Your task to perform on an android device: uninstall "Cash App" Image 0: 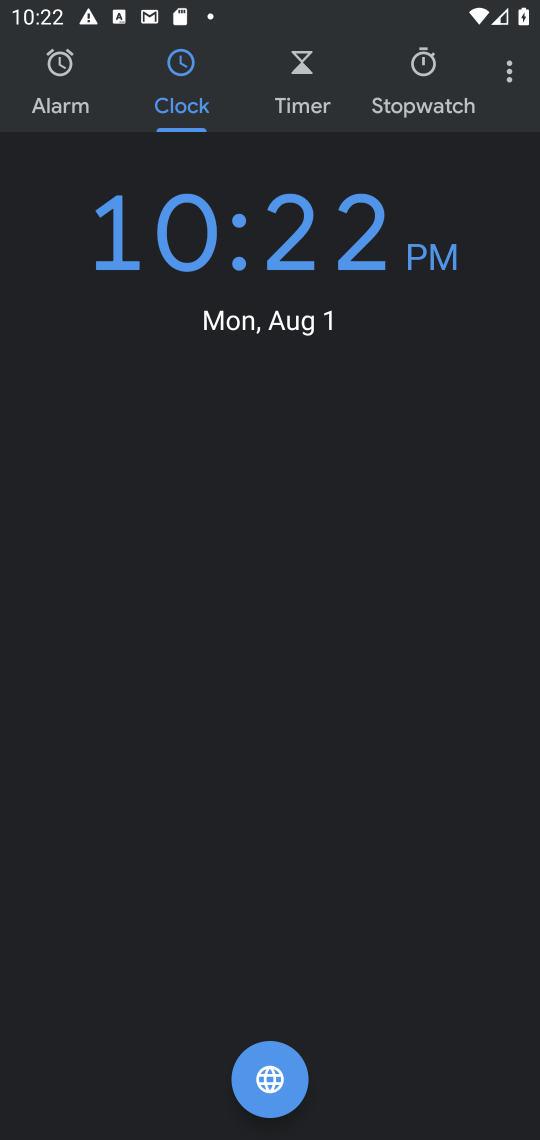
Step 0: press home button
Your task to perform on an android device: uninstall "Cash App" Image 1: 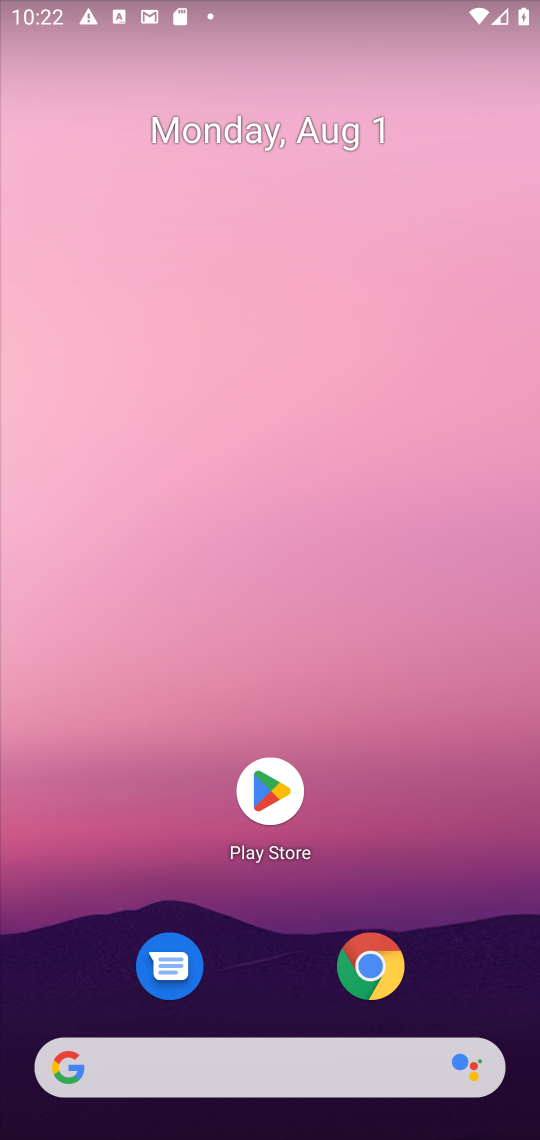
Step 1: click (268, 781)
Your task to perform on an android device: uninstall "Cash App" Image 2: 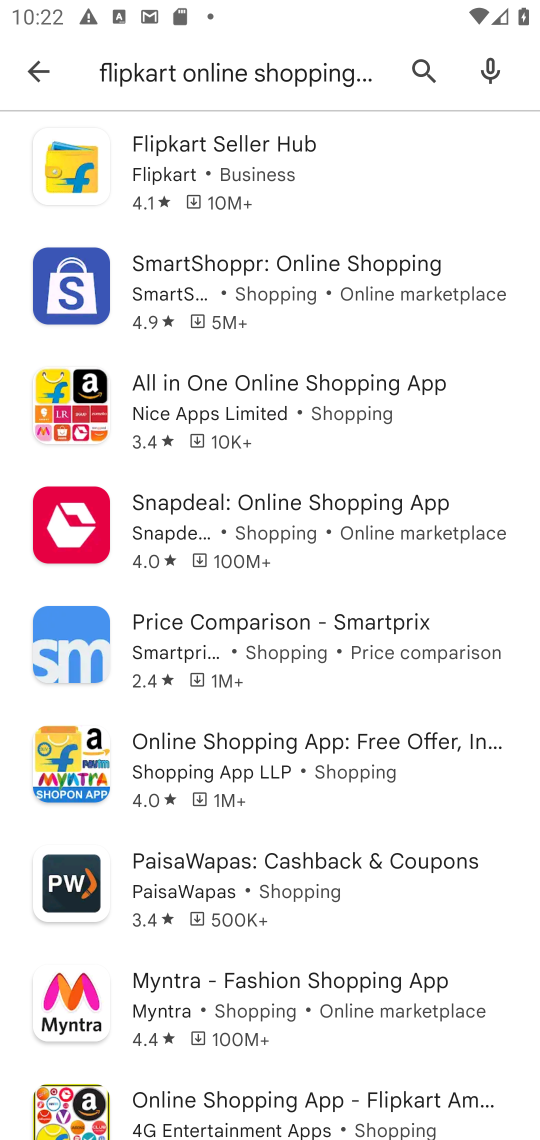
Step 2: click (70, 231)
Your task to perform on an android device: uninstall "Cash App" Image 3: 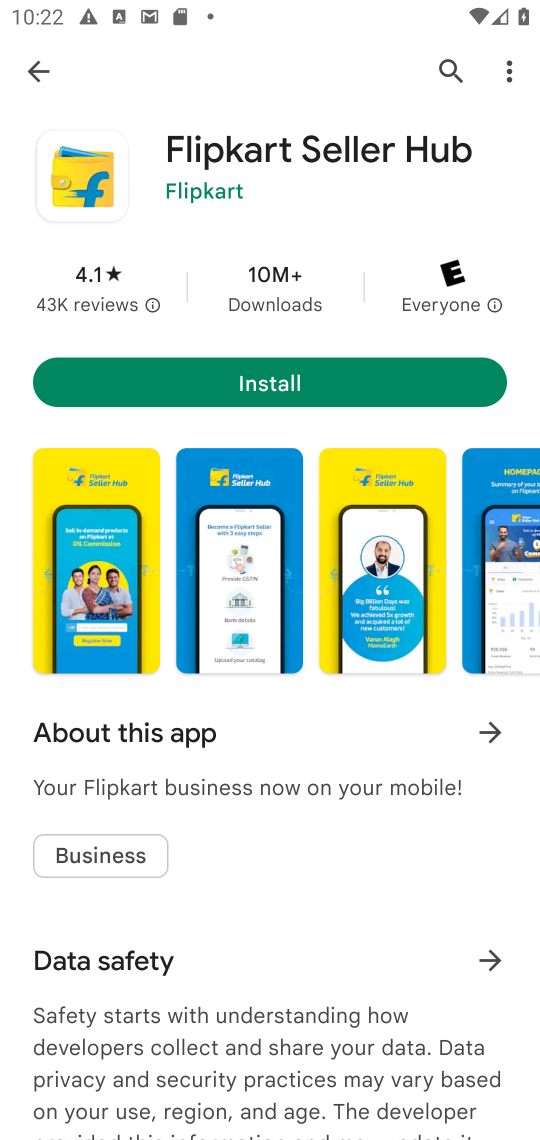
Step 3: click (447, 67)
Your task to perform on an android device: uninstall "Cash App" Image 4: 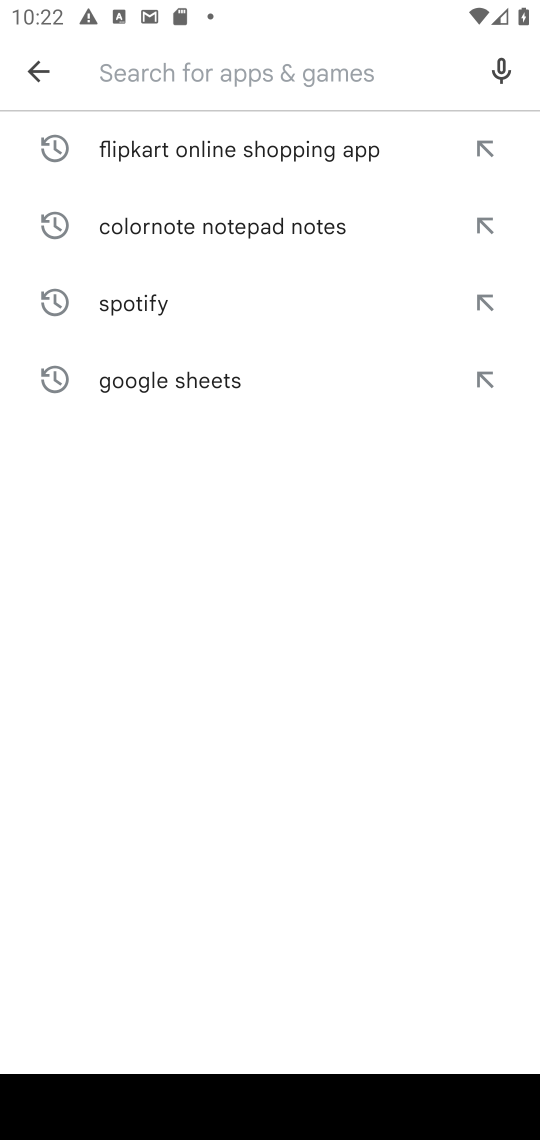
Step 4: type "Cash App"
Your task to perform on an android device: uninstall "Cash App" Image 5: 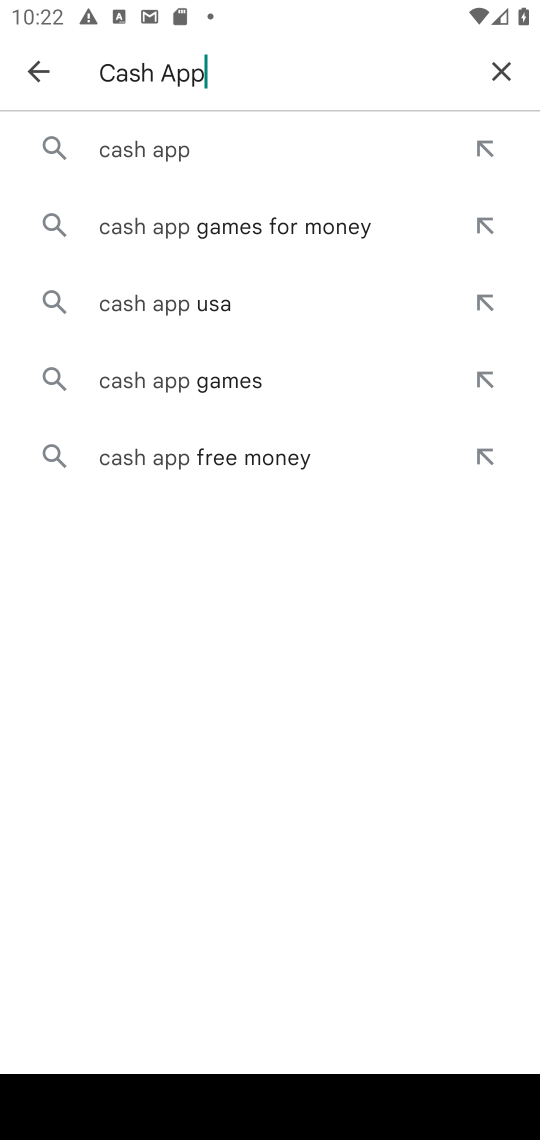
Step 5: click (134, 140)
Your task to perform on an android device: uninstall "Cash App" Image 6: 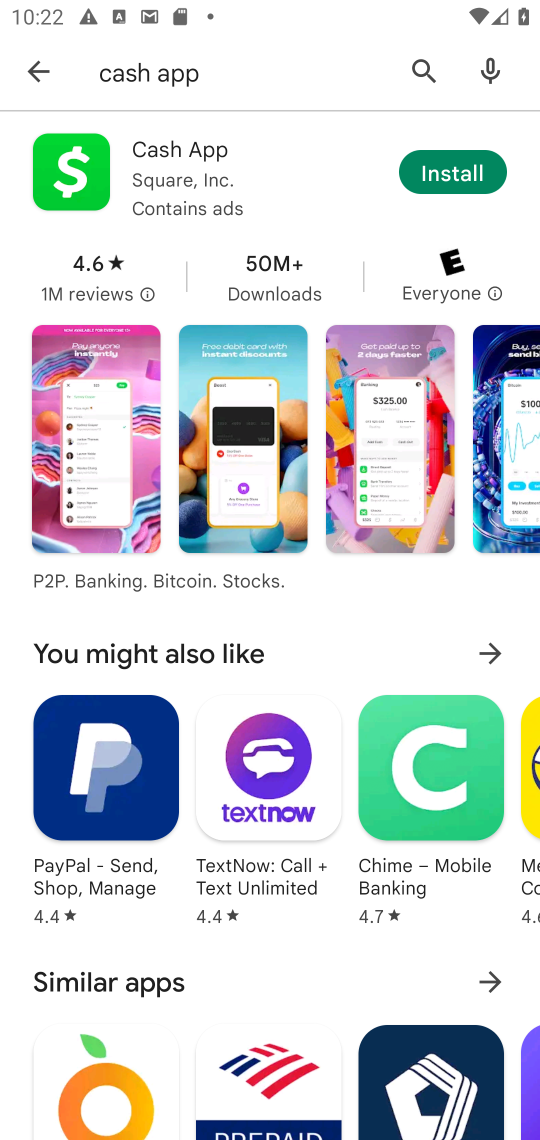
Step 6: task complete